Your task to perform on an android device: turn off translation in the chrome app Image 0: 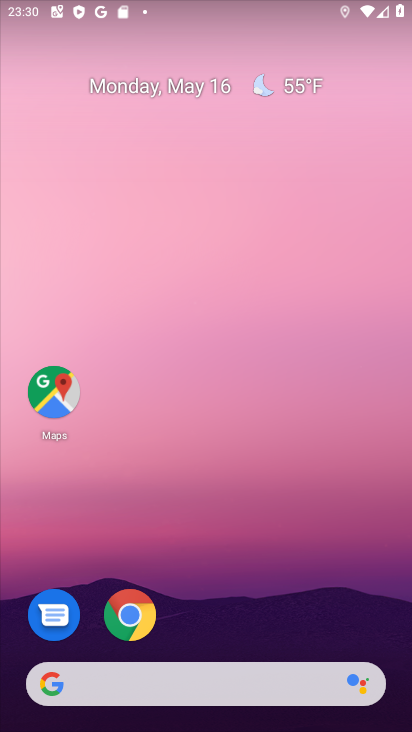
Step 0: click (133, 609)
Your task to perform on an android device: turn off translation in the chrome app Image 1: 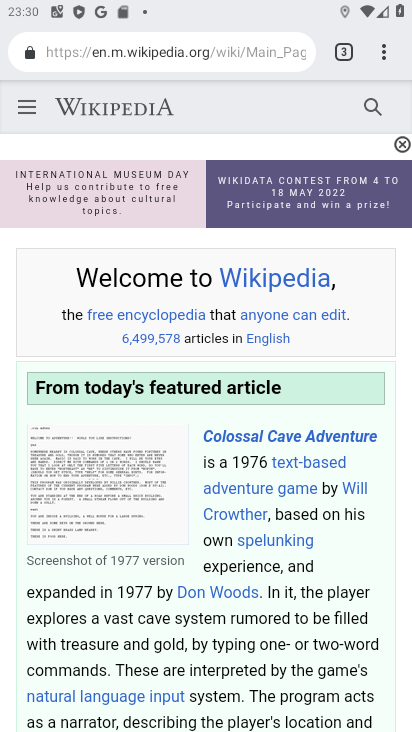
Step 1: click (389, 52)
Your task to perform on an android device: turn off translation in the chrome app Image 2: 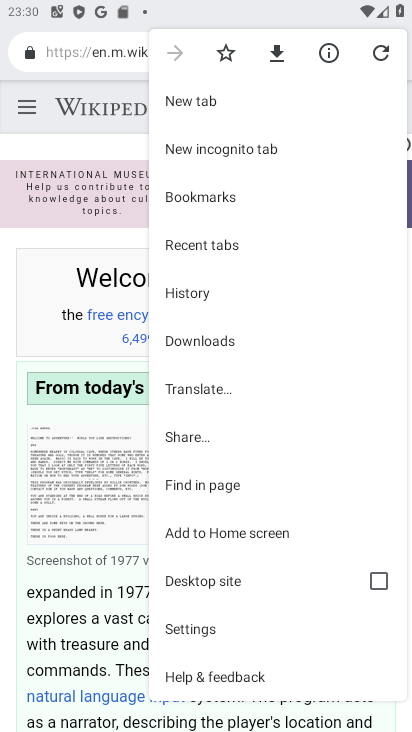
Step 2: click (168, 634)
Your task to perform on an android device: turn off translation in the chrome app Image 3: 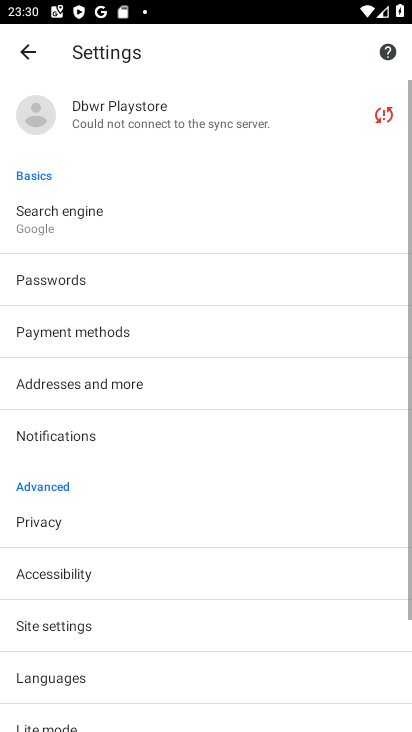
Step 3: drag from (239, 573) to (214, 164)
Your task to perform on an android device: turn off translation in the chrome app Image 4: 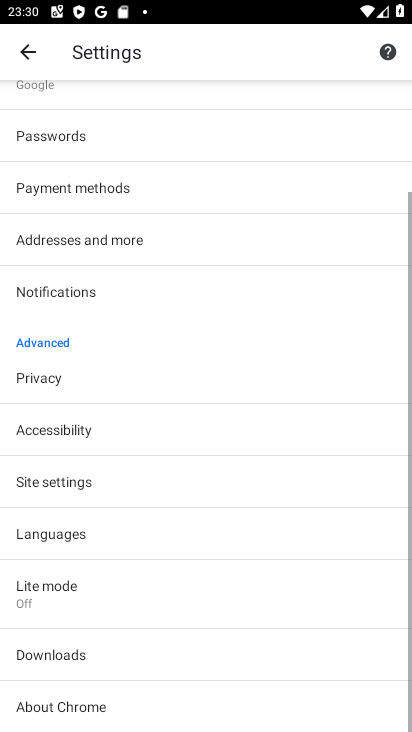
Step 4: click (85, 531)
Your task to perform on an android device: turn off translation in the chrome app Image 5: 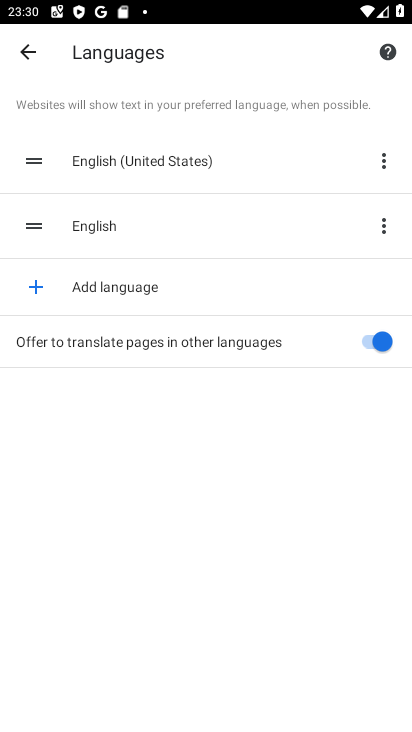
Step 5: click (373, 346)
Your task to perform on an android device: turn off translation in the chrome app Image 6: 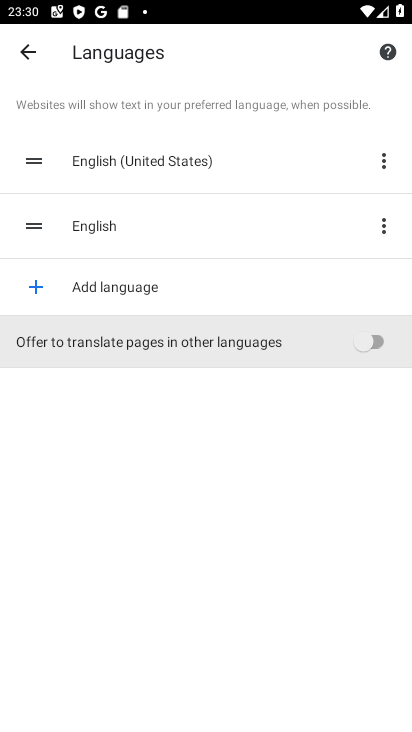
Step 6: task complete